Your task to perform on an android device: Show me popular videos on Youtube Image 0: 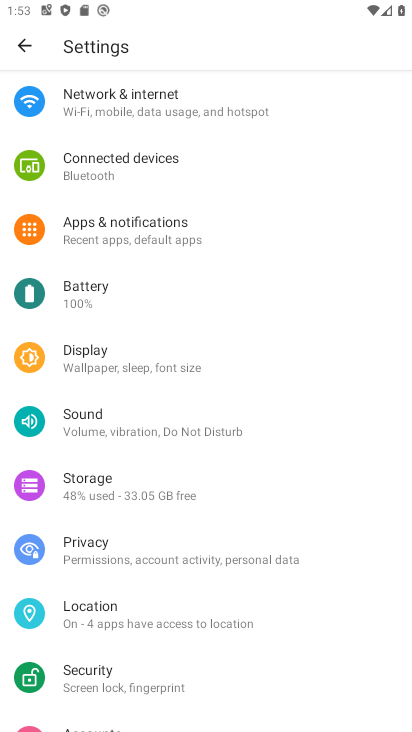
Step 0: press home button
Your task to perform on an android device: Show me popular videos on Youtube Image 1: 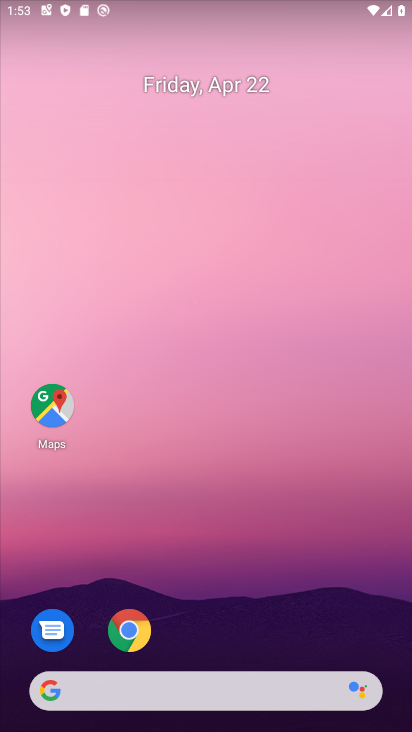
Step 1: drag from (283, 173) to (274, 118)
Your task to perform on an android device: Show me popular videos on Youtube Image 2: 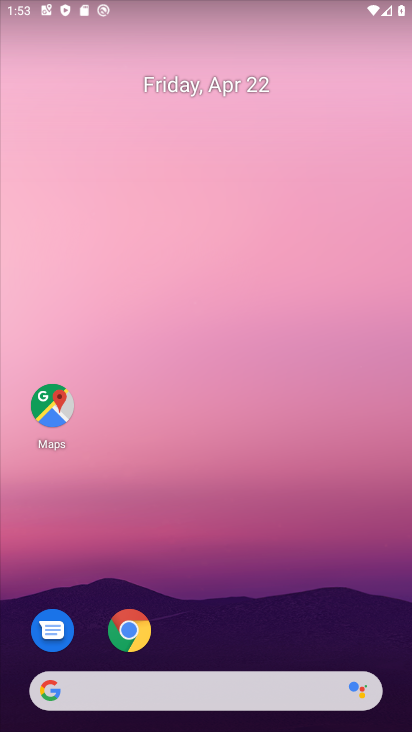
Step 2: drag from (259, 677) to (201, 67)
Your task to perform on an android device: Show me popular videos on Youtube Image 3: 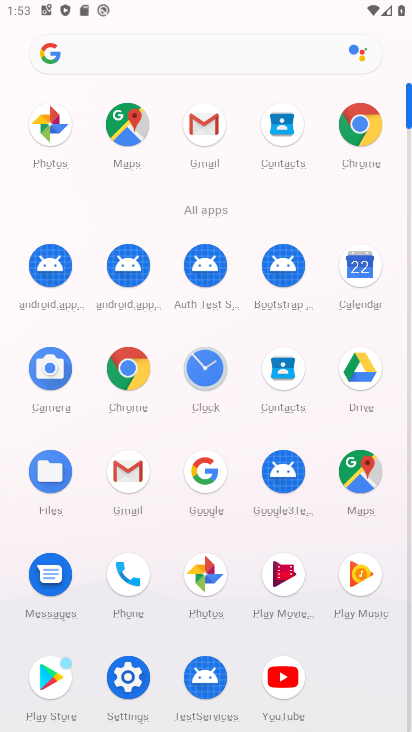
Step 3: click (295, 682)
Your task to perform on an android device: Show me popular videos on Youtube Image 4: 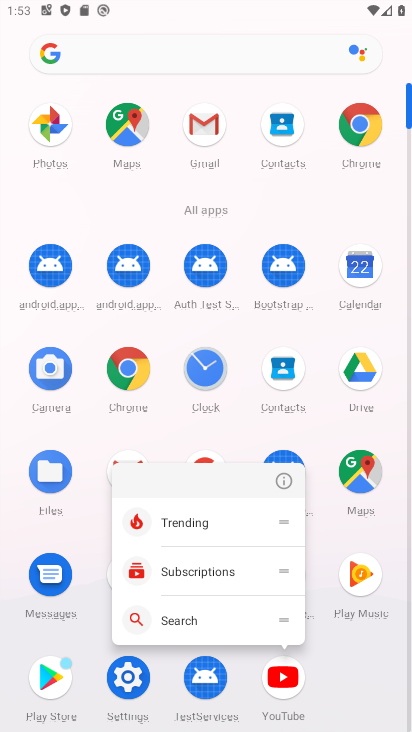
Step 4: click (295, 682)
Your task to perform on an android device: Show me popular videos on Youtube Image 5: 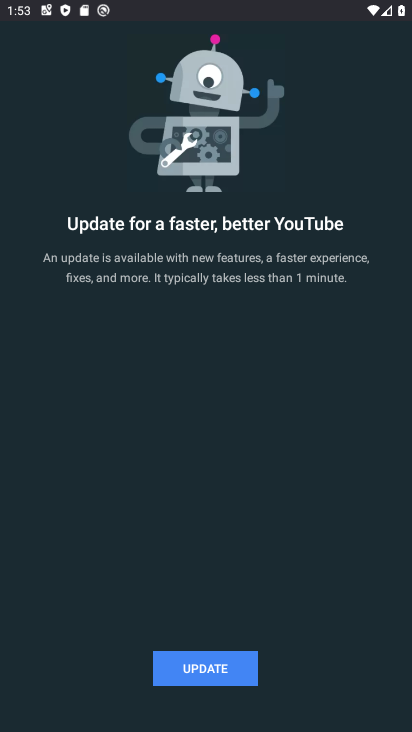
Step 5: click (210, 661)
Your task to perform on an android device: Show me popular videos on Youtube Image 6: 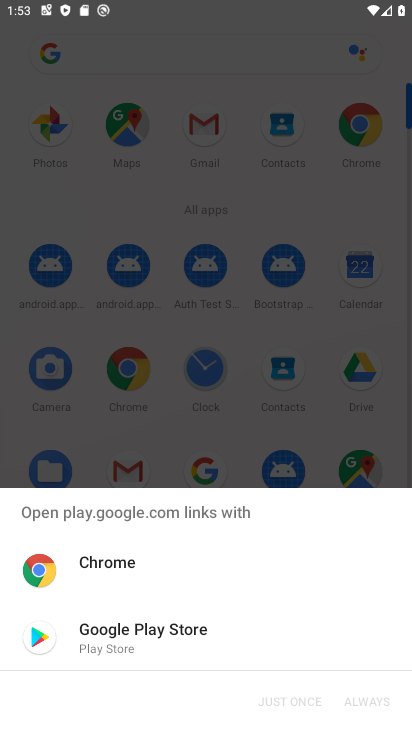
Step 6: task complete